Your task to perform on an android device: Open Amazon Image 0: 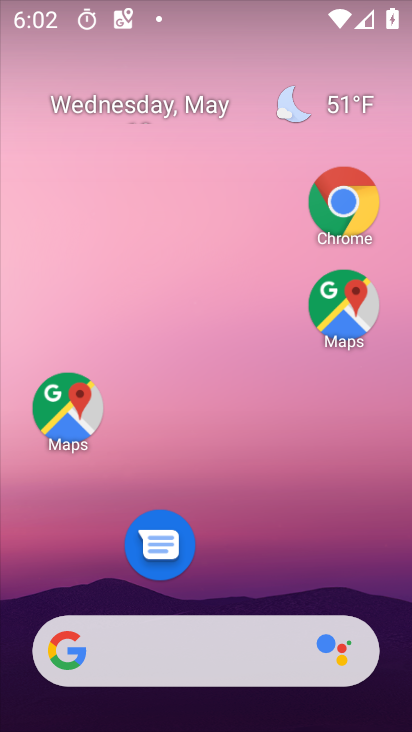
Step 0: click (333, 209)
Your task to perform on an android device: Open Amazon Image 1: 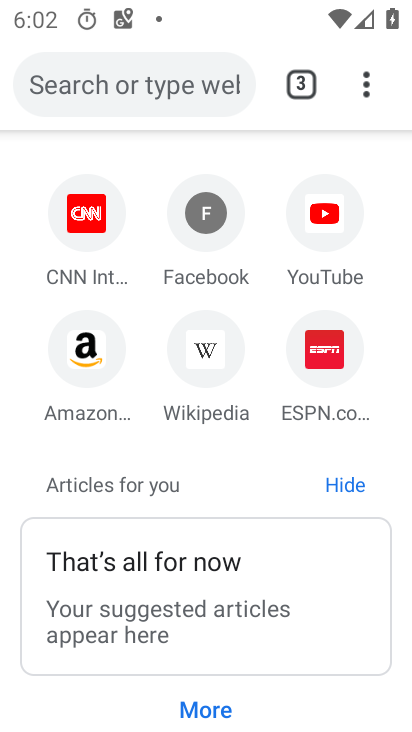
Step 1: click (80, 342)
Your task to perform on an android device: Open Amazon Image 2: 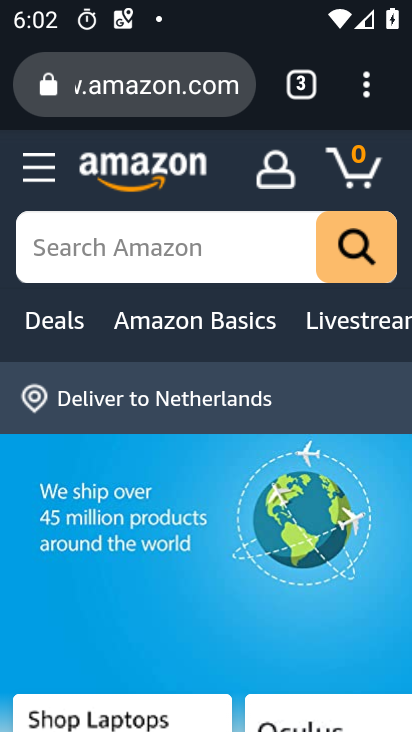
Step 2: task complete